Your task to perform on an android device: change alarm snooze length Image 0: 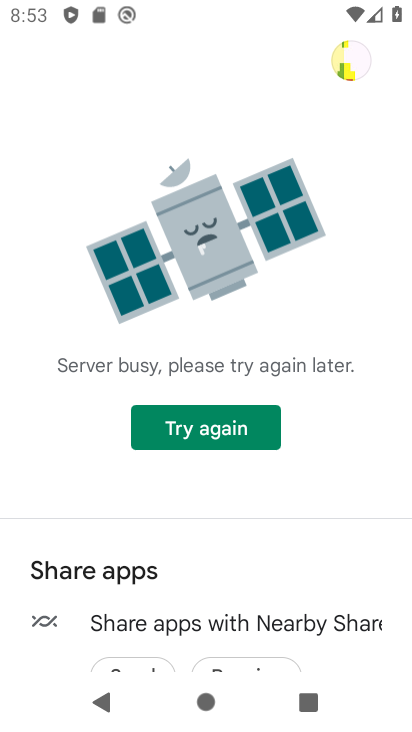
Step 0: press home button
Your task to perform on an android device: change alarm snooze length Image 1: 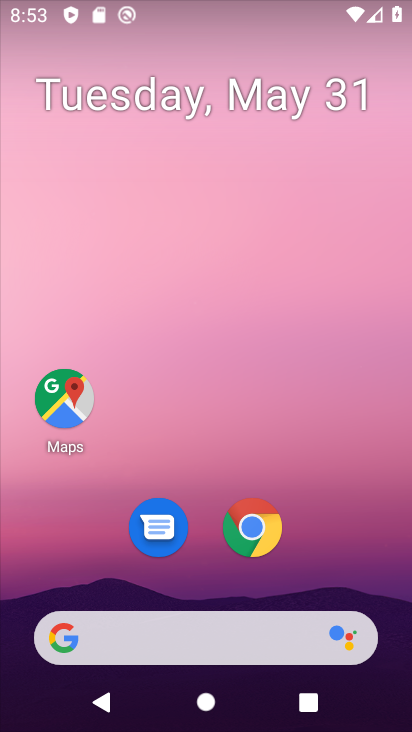
Step 1: drag from (213, 583) to (132, 102)
Your task to perform on an android device: change alarm snooze length Image 2: 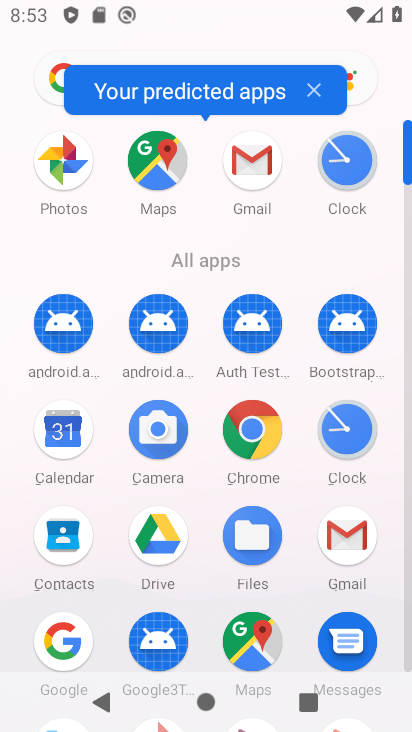
Step 2: click (361, 423)
Your task to perform on an android device: change alarm snooze length Image 3: 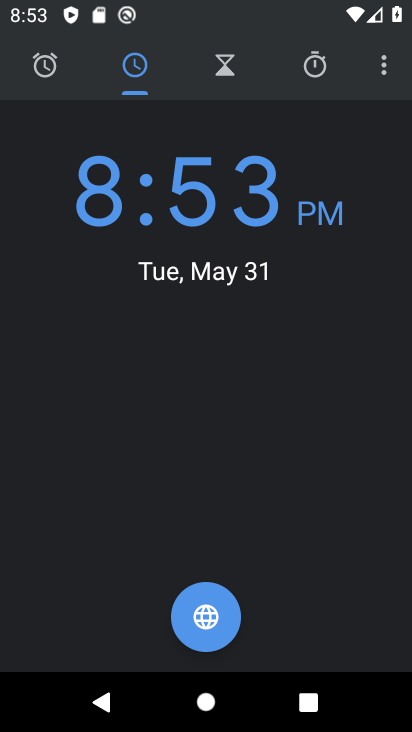
Step 3: click (385, 70)
Your task to perform on an android device: change alarm snooze length Image 4: 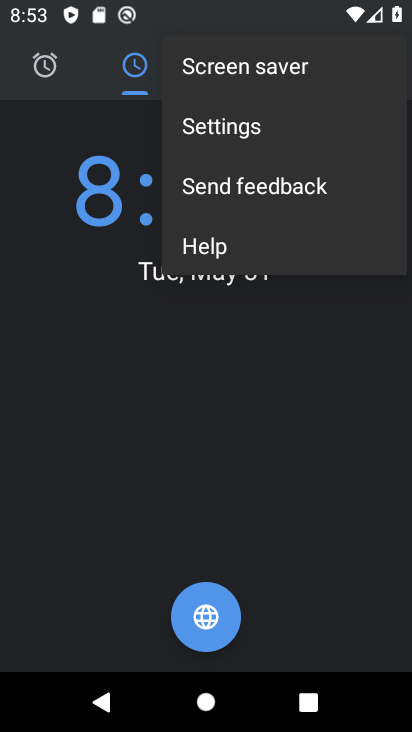
Step 4: click (261, 124)
Your task to perform on an android device: change alarm snooze length Image 5: 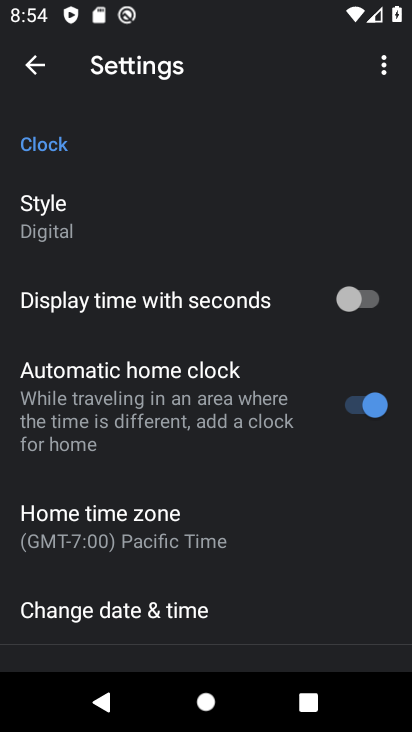
Step 5: drag from (168, 505) to (169, 299)
Your task to perform on an android device: change alarm snooze length Image 6: 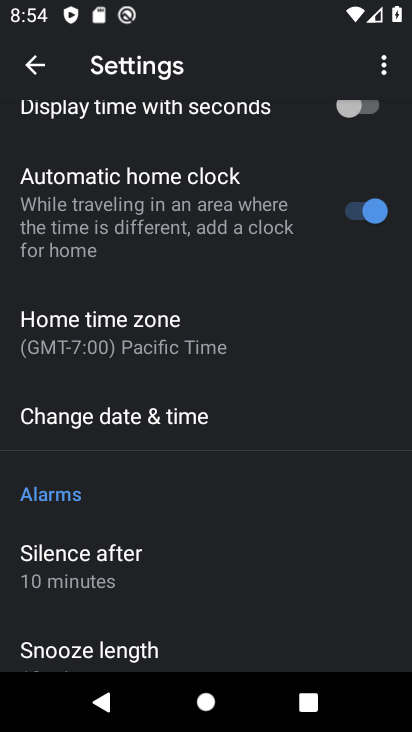
Step 6: drag from (130, 579) to (132, 323)
Your task to perform on an android device: change alarm snooze length Image 7: 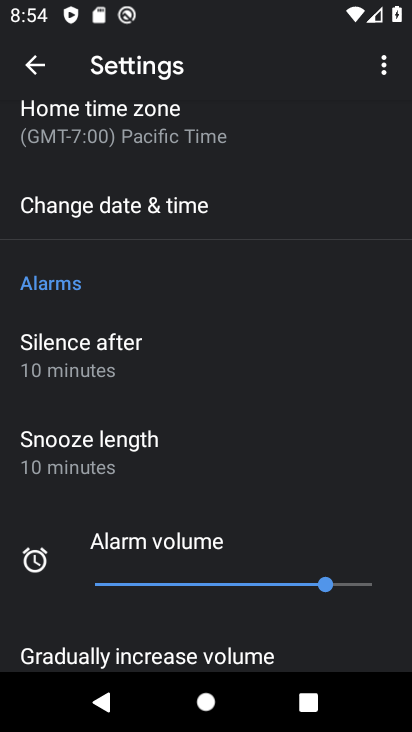
Step 7: click (128, 462)
Your task to perform on an android device: change alarm snooze length Image 8: 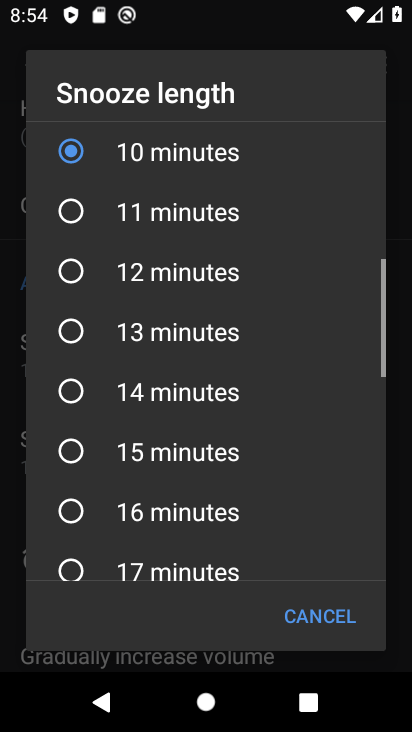
Step 8: click (81, 457)
Your task to perform on an android device: change alarm snooze length Image 9: 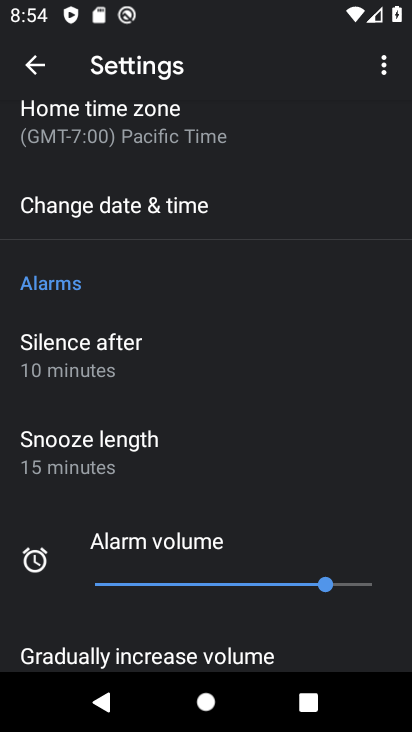
Step 9: task complete